Your task to perform on an android device: Search for custom t-shirts on Etsy. Image 0: 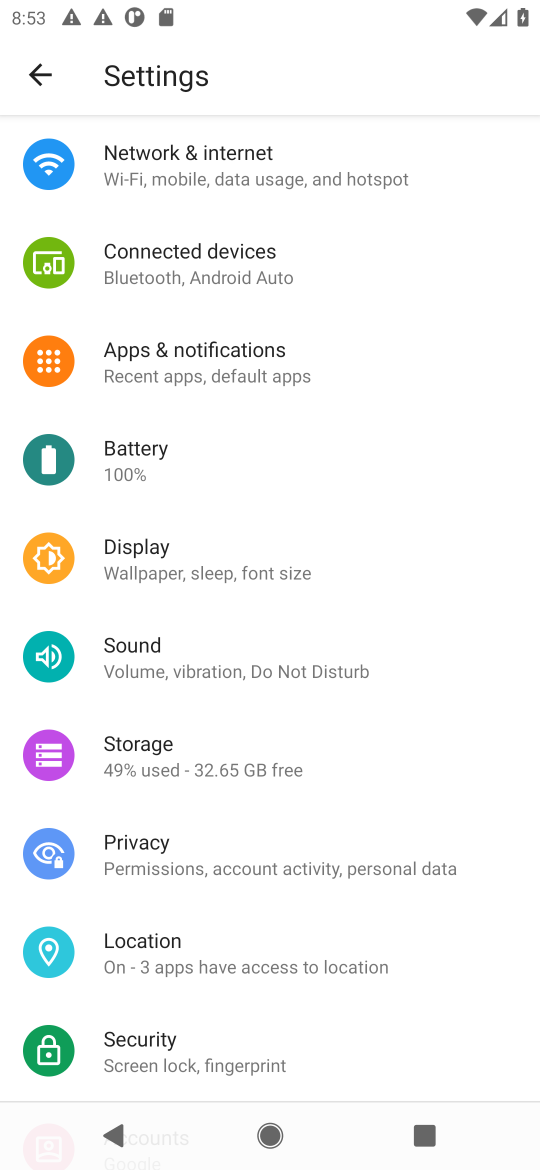
Step 0: press home button
Your task to perform on an android device: Search for custom t-shirts on Etsy. Image 1: 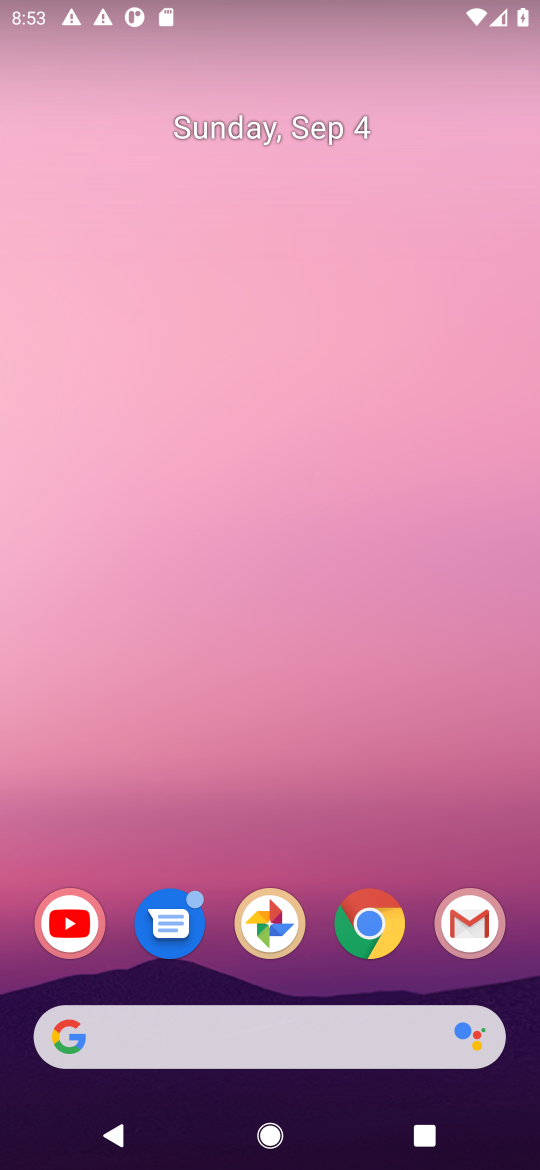
Step 1: click (355, 913)
Your task to perform on an android device: Search for custom t-shirts on Etsy. Image 2: 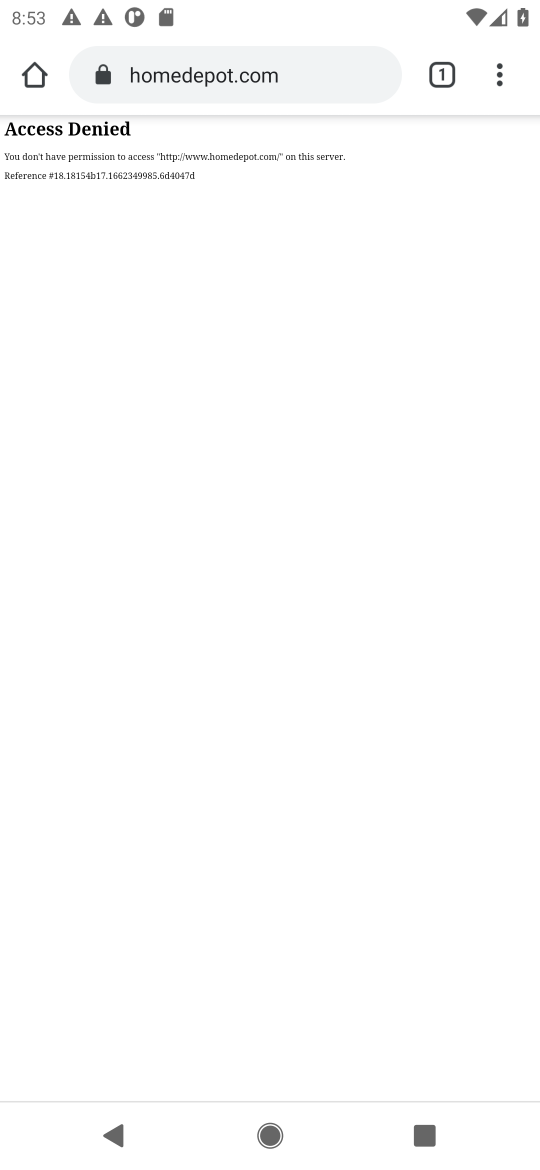
Step 2: click (341, 71)
Your task to perform on an android device: Search for custom t-shirts on Etsy. Image 3: 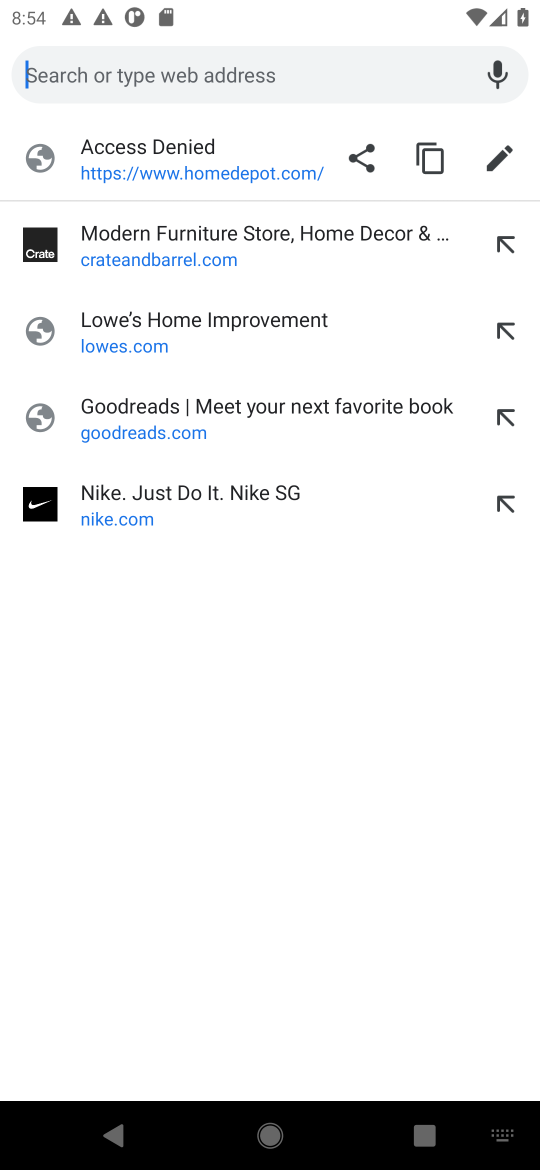
Step 3: type "etsy"
Your task to perform on an android device: Search for custom t-shirts on Etsy. Image 4: 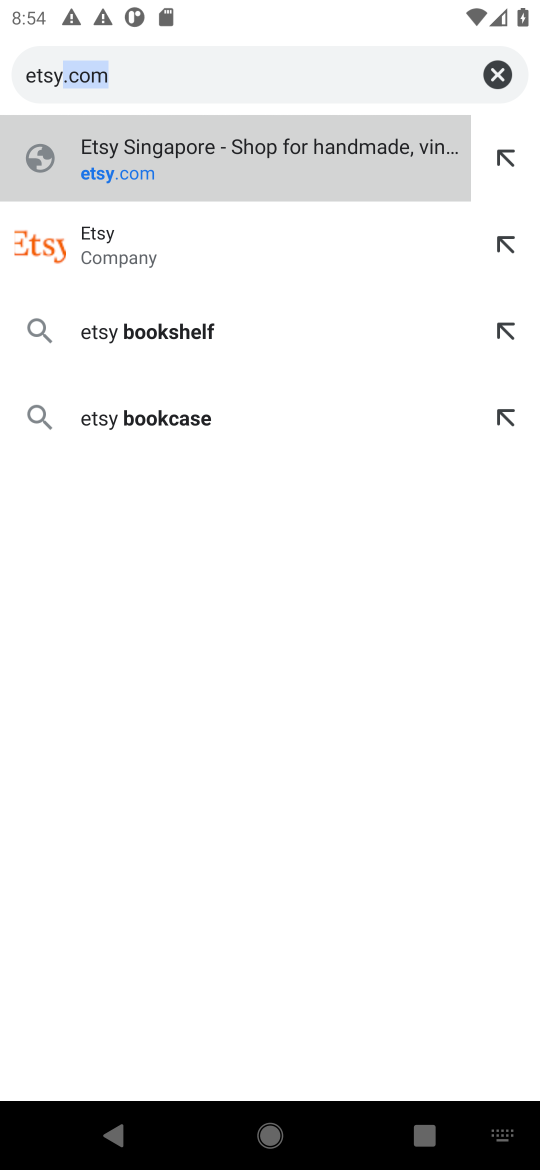
Step 4: click (88, 171)
Your task to perform on an android device: Search for custom t-shirts on Etsy. Image 5: 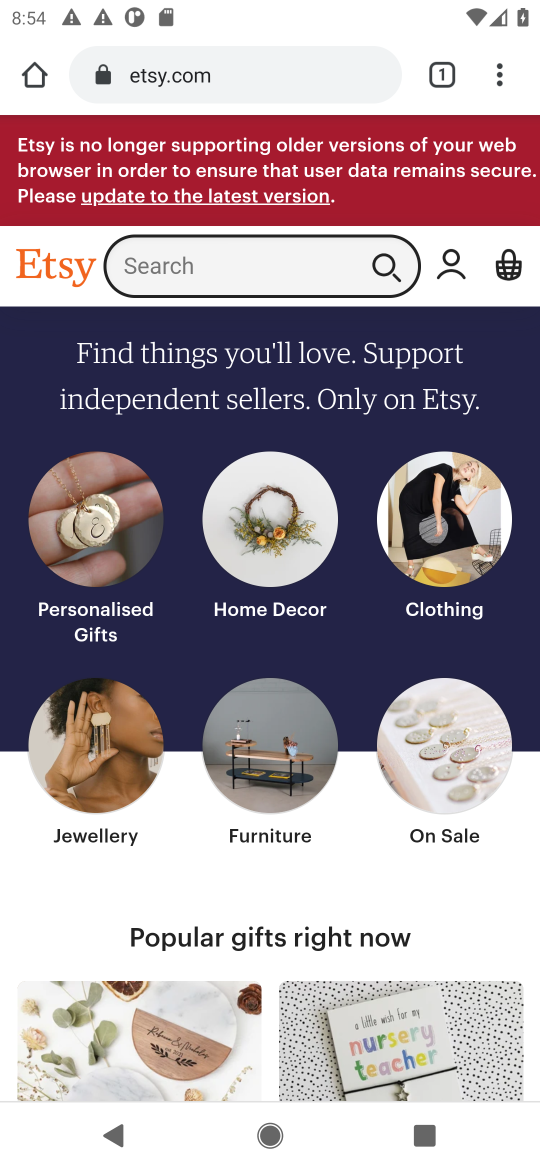
Step 5: click (255, 268)
Your task to perform on an android device: Search for custom t-shirts on Etsy. Image 6: 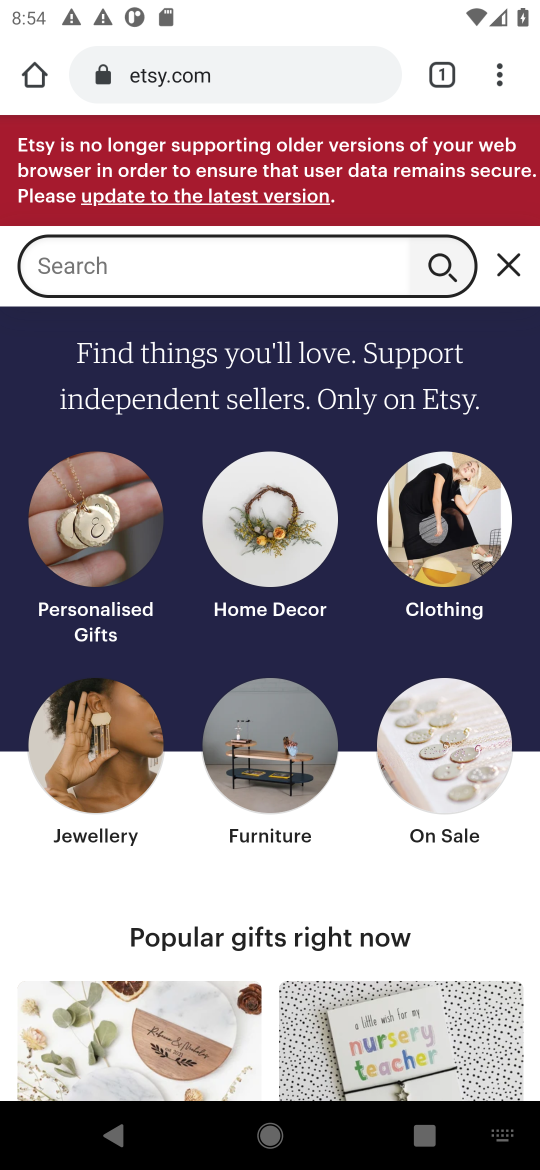
Step 6: type "custom t-shirts"
Your task to perform on an android device: Search for custom t-shirts on Etsy. Image 7: 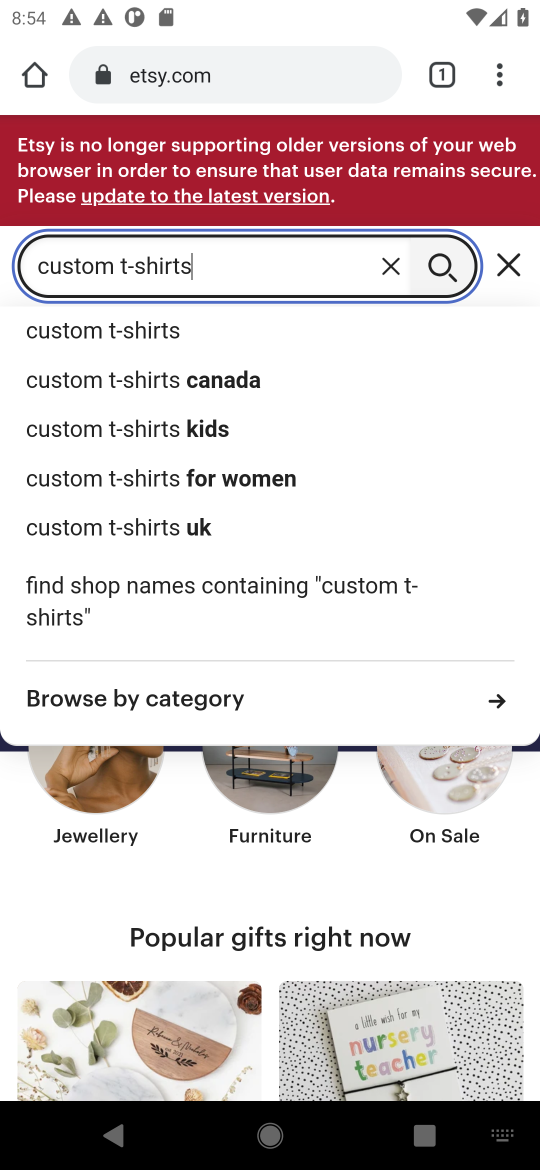
Step 7: click (150, 328)
Your task to perform on an android device: Search for custom t-shirts on Etsy. Image 8: 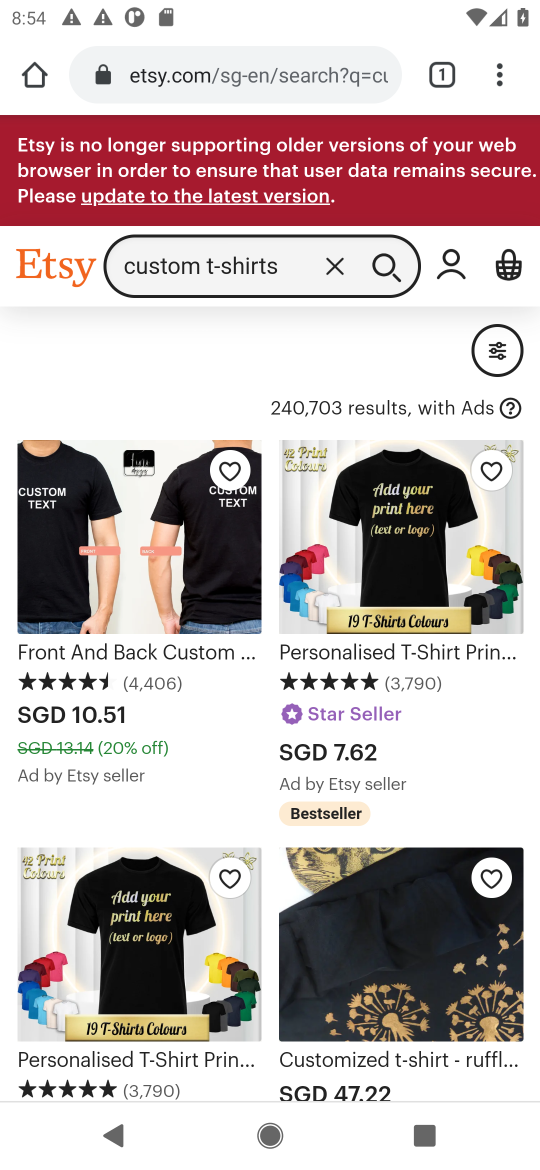
Step 8: task complete